Your task to perform on an android device: turn pop-ups on in chrome Image 0: 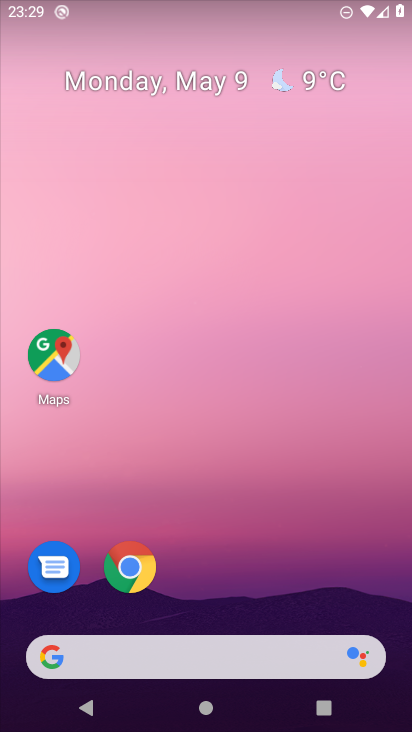
Step 0: press home button
Your task to perform on an android device: turn pop-ups on in chrome Image 1: 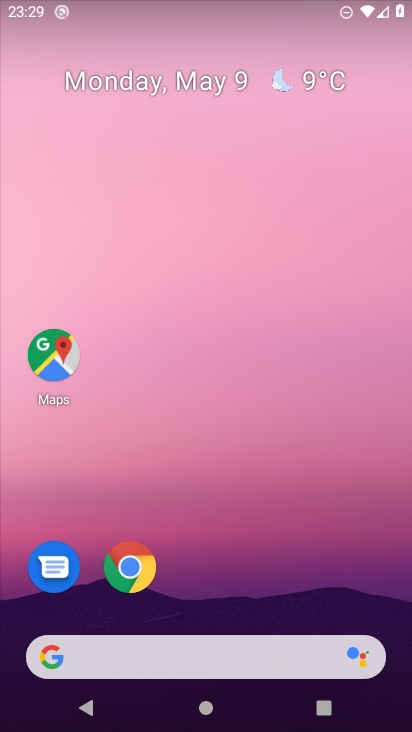
Step 1: drag from (197, 600) to (236, 133)
Your task to perform on an android device: turn pop-ups on in chrome Image 2: 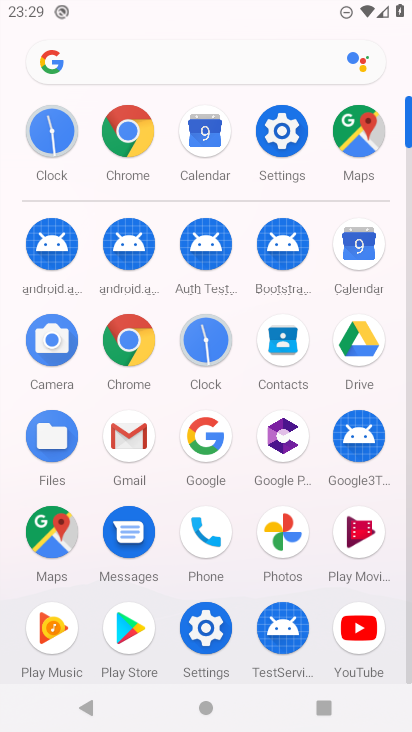
Step 2: click (123, 333)
Your task to perform on an android device: turn pop-ups on in chrome Image 3: 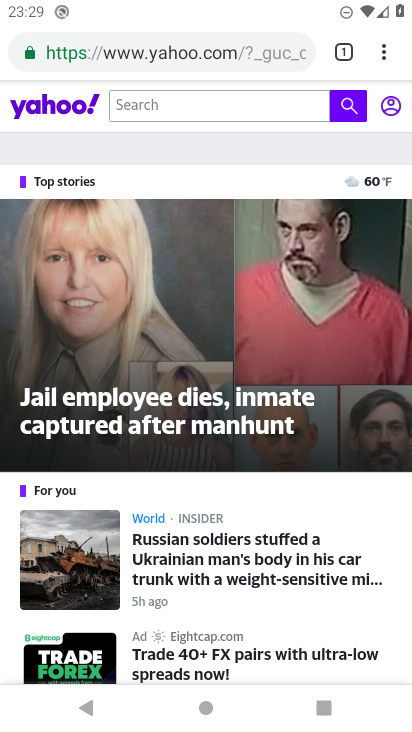
Step 3: click (381, 51)
Your task to perform on an android device: turn pop-ups on in chrome Image 4: 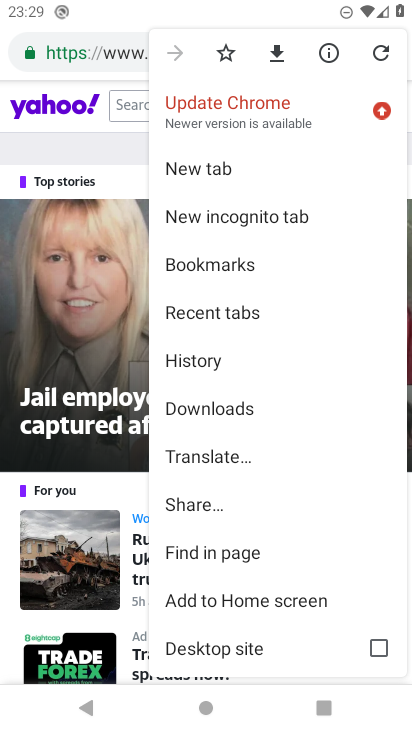
Step 4: drag from (237, 615) to (257, 245)
Your task to perform on an android device: turn pop-ups on in chrome Image 5: 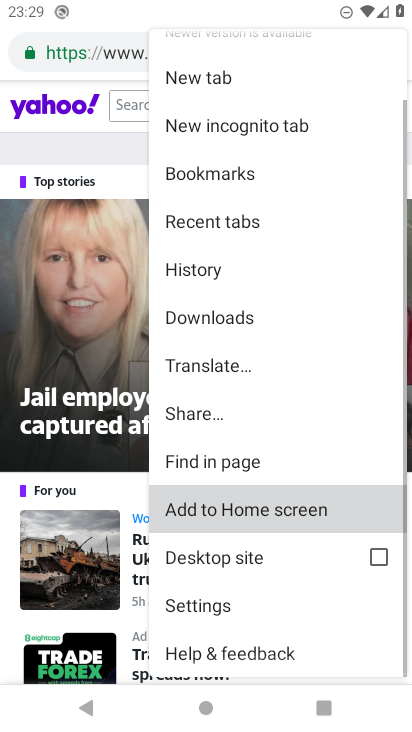
Step 5: click (267, 122)
Your task to perform on an android device: turn pop-ups on in chrome Image 6: 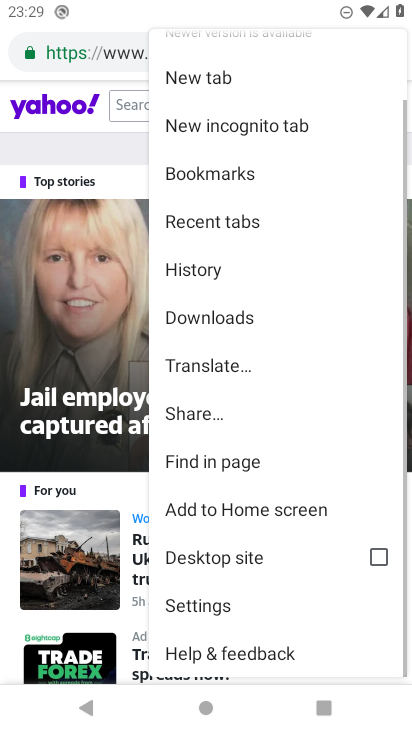
Step 6: click (236, 605)
Your task to perform on an android device: turn pop-ups on in chrome Image 7: 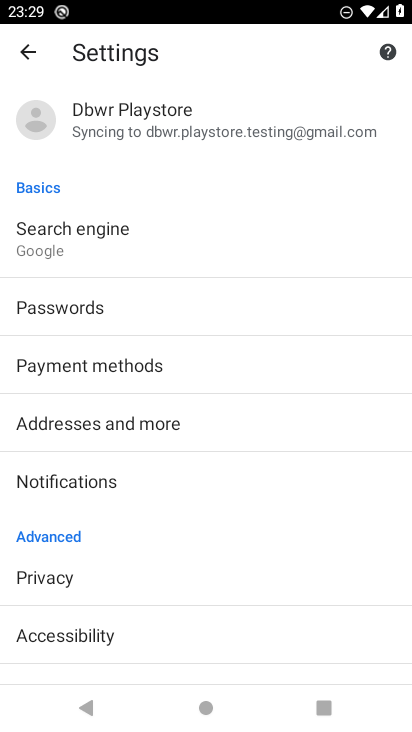
Step 7: drag from (159, 619) to (205, 145)
Your task to perform on an android device: turn pop-ups on in chrome Image 8: 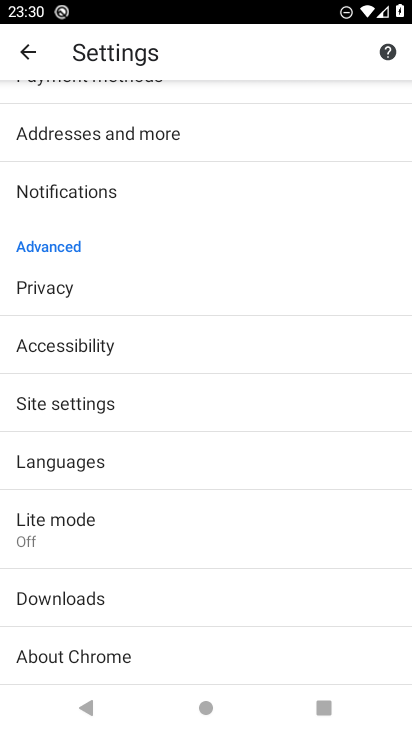
Step 8: click (122, 404)
Your task to perform on an android device: turn pop-ups on in chrome Image 9: 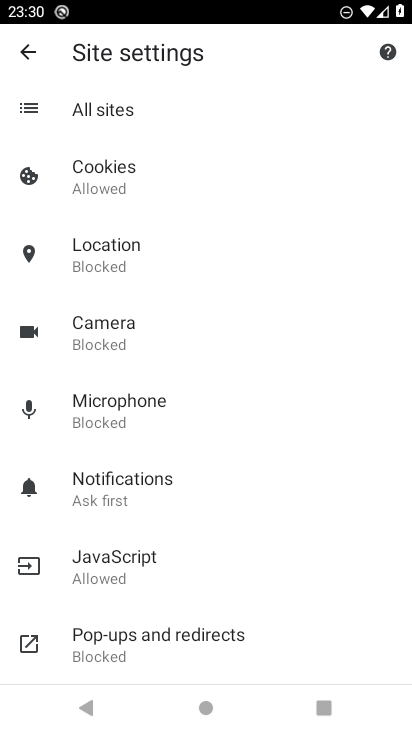
Step 9: click (206, 647)
Your task to perform on an android device: turn pop-ups on in chrome Image 10: 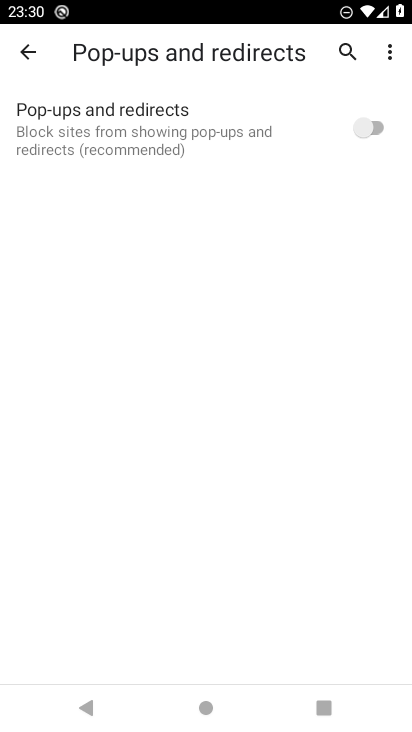
Step 10: click (371, 123)
Your task to perform on an android device: turn pop-ups on in chrome Image 11: 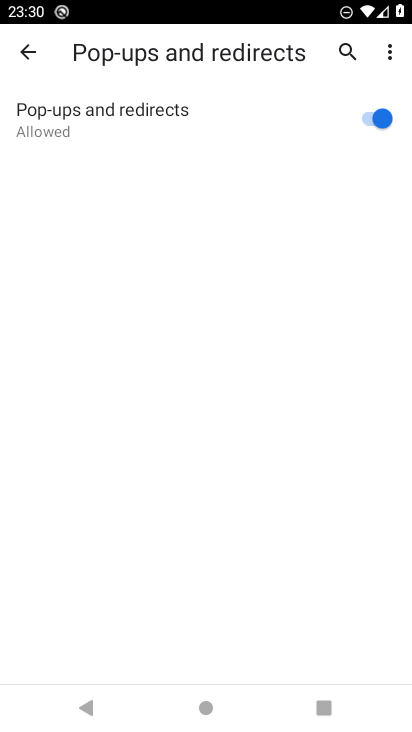
Step 11: task complete